Your task to perform on an android device: turn notification dots on Image 0: 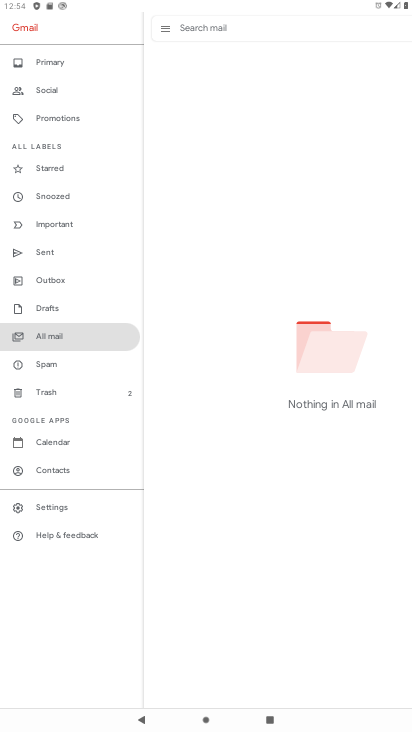
Step 0: press home button
Your task to perform on an android device: turn notification dots on Image 1: 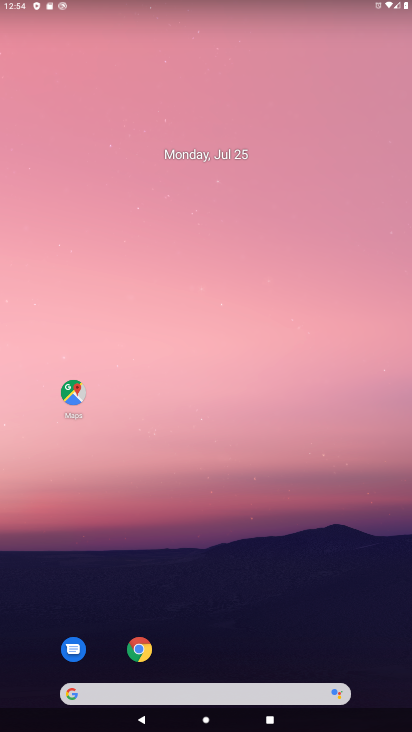
Step 1: drag from (235, 587) to (275, 61)
Your task to perform on an android device: turn notification dots on Image 2: 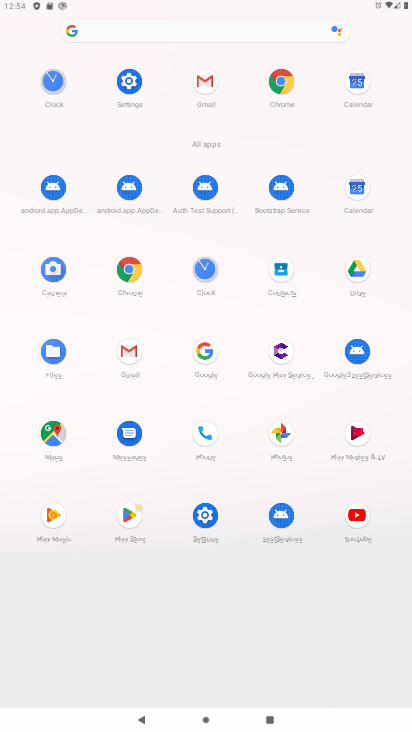
Step 2: click (134, 87)
Your task to perform on an android device: turn notification dots on Image 3: 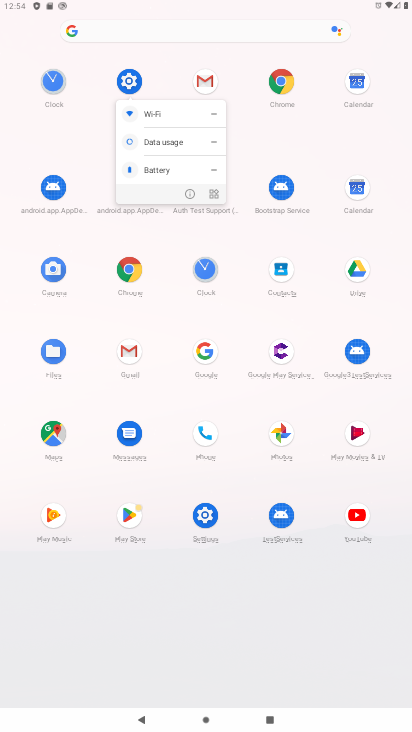
Step 3: click (132, 82)
Your task to perform on an android device: turn notification dots on Image 4: 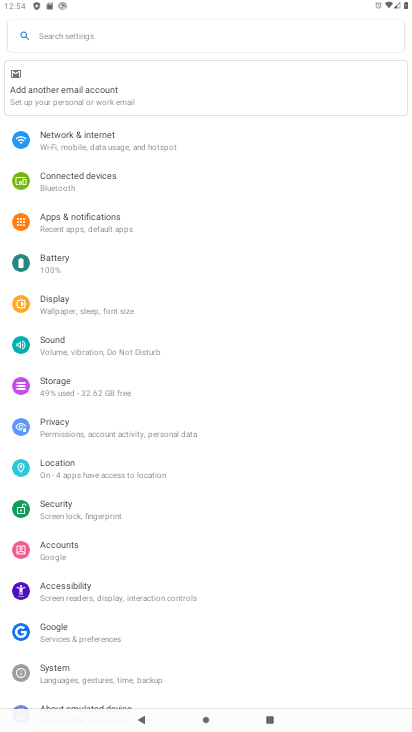
Step 4: click (80, 210)
Your task to perform on an android device: turn notification dots on Image 5: 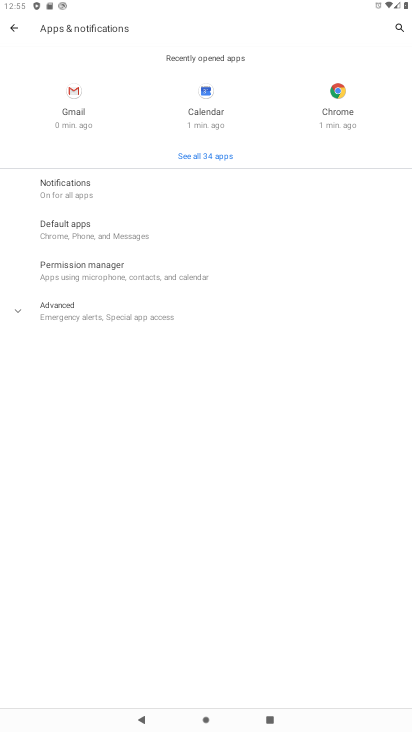
Step 5: click (47, 193)
Your task to perform on an android device: turn notification dots on Image 6: 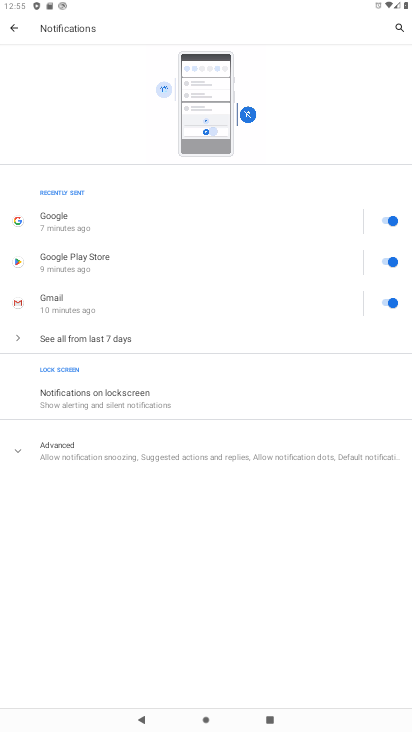
Step 6: click (13, 447)
Your task to perform on an android device: turn notification dots on Image 7: 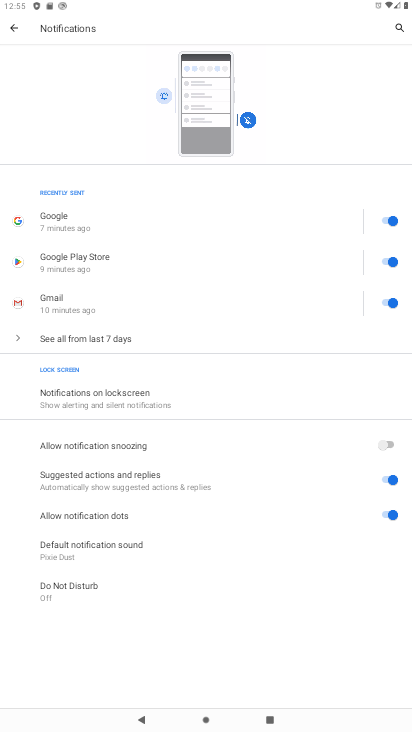
Step 7: task complete